Your task to perform on an android device: Open wifi settings Image 0: 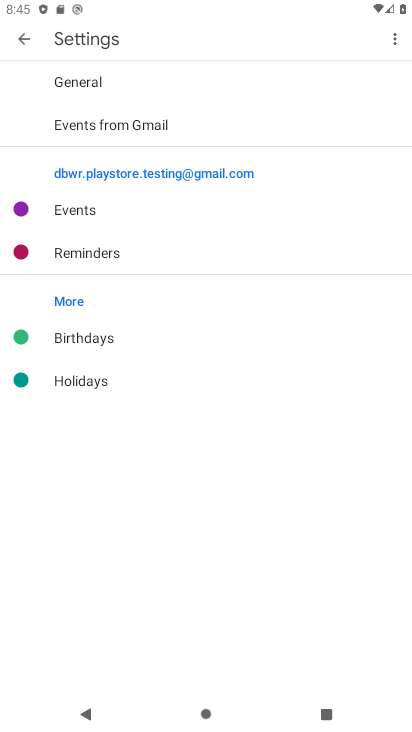
Step 0: press home button
Your task to perform on an android device: Open wifi settings Image 1: 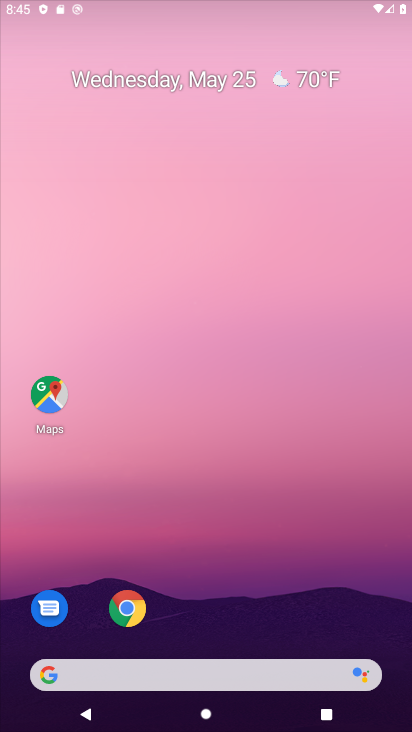
Step 1: drag from (294, 563) to (221, 32)
Your task to perform on an android device: Open wifi settings Image 2: 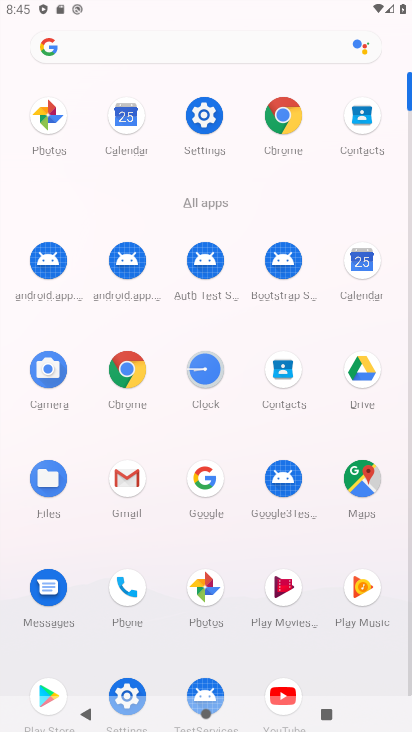
Step 2: click (195, 121)
Your task to perform on an android device: Open wifi settings Image 3: 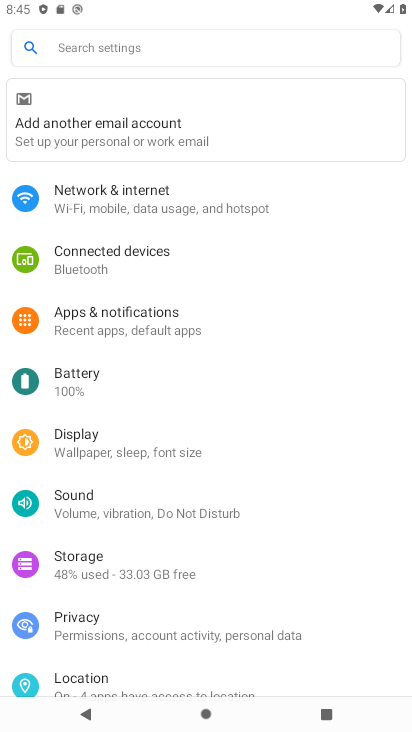
Step 3: click (151, 188)
Your task to perform on an android device: Open wifi settings Image 4: 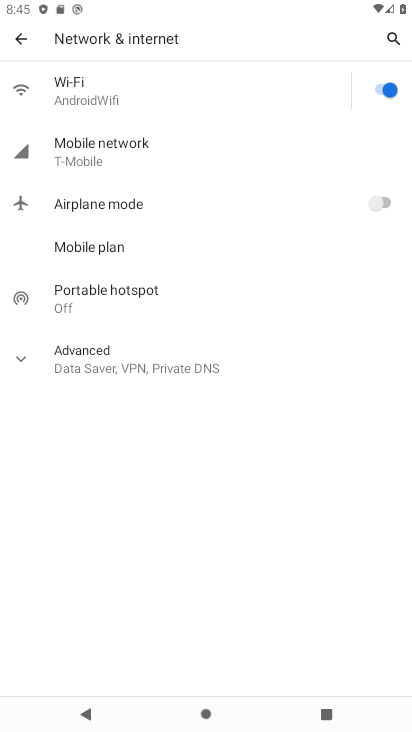
Step 4: click (136, 98)
Your task to perform on an android device: Open wifi settings Image 5: 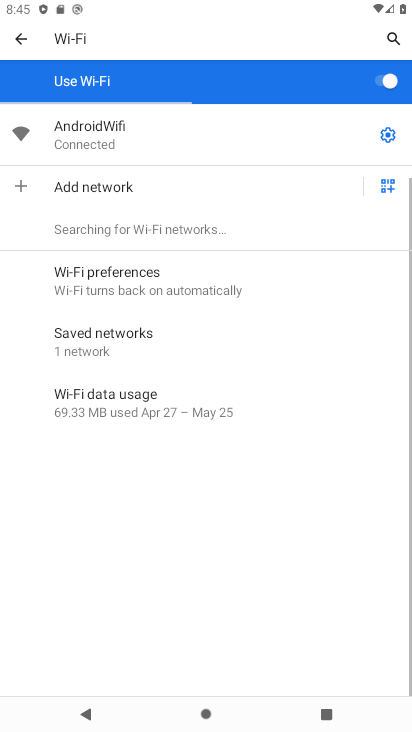
Step 5: task complete